Your task to perform on an android device: stop showing notifications on the lock screen Image 0: 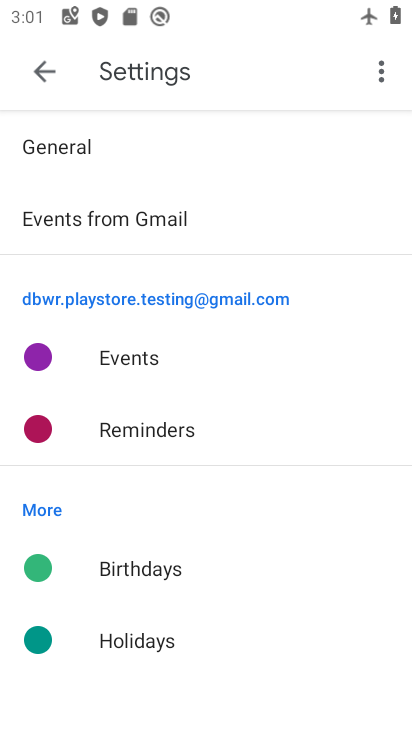
Step 0: press home button
Your task to perform on an android device: stop showing notifications on the lock screen Image 1: 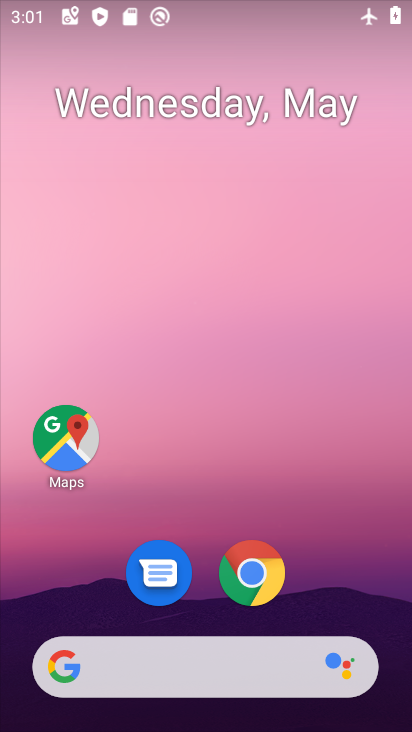
Step 1: drag from (340, 588) to (350, 120)
Your task to perform on an android device: stop showing notifications on the lock screen Image 2: 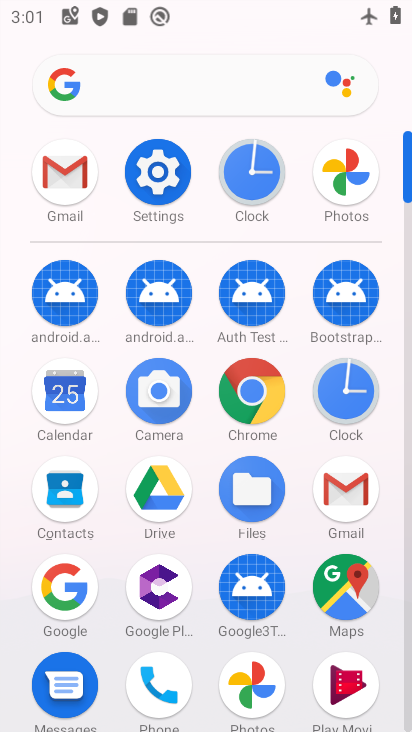
Step 2: click (149, 179)
Your task to perform on an android device: stop showing notifications on the lock screen Image 3: 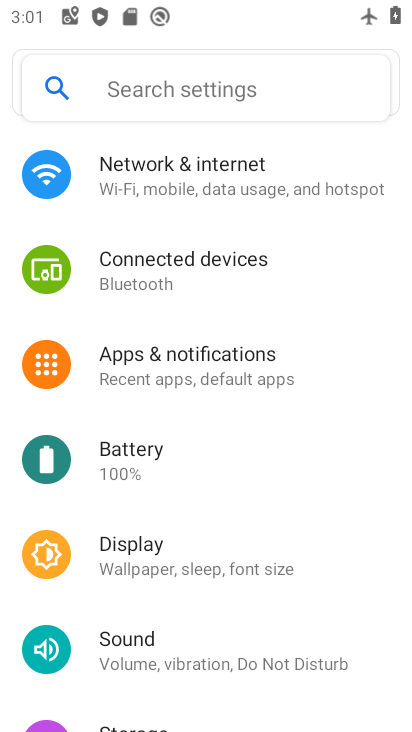
Step 3: click (147, 360)
Your task to perform on an android device: stop showing notifications on the lock screen Image 4: 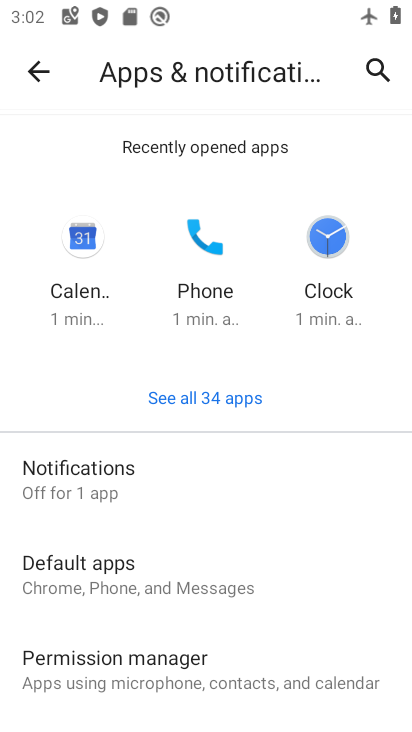
Step 4: click (153, 485)
Your task to perform on an android device: stop showing notifications on the lock screen Image 5: 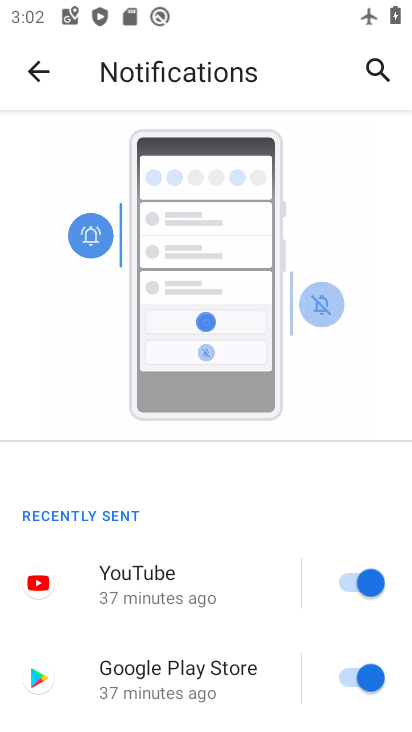
Step 5: drag from (180, 630) to (208, 284)
Your task to perform on an android device: stop showing notifications on the lock screen Image 6: 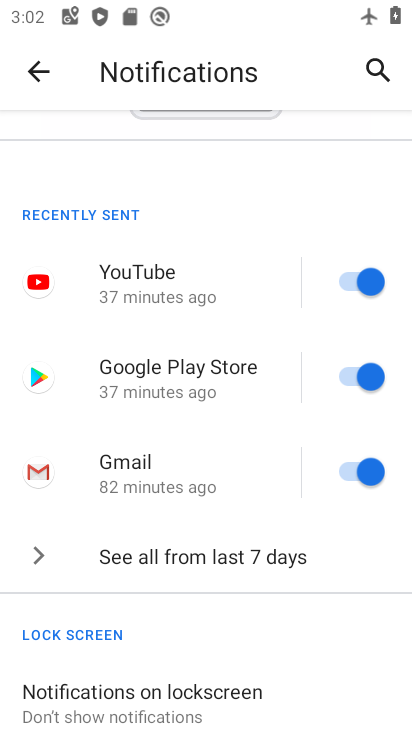
Step 6: drag from (169, 605) to (217, 328)
Your task to perform on an android device: stop showing notifications on the lock screen Image 7: 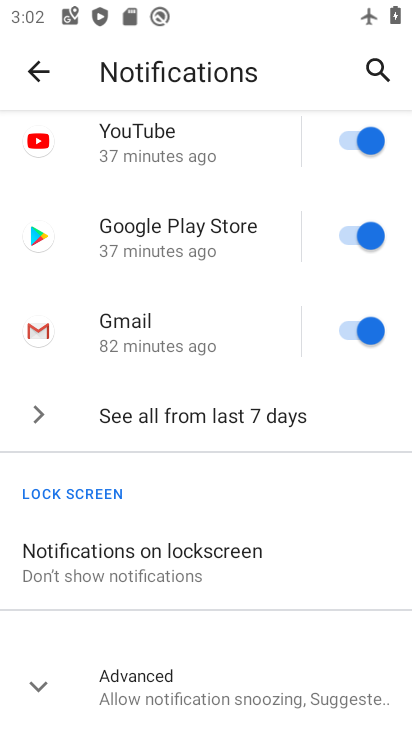
Step 7: click (143, 568)
Your task to perform on an android device: stop showing notifications on the lock screen Image 8: 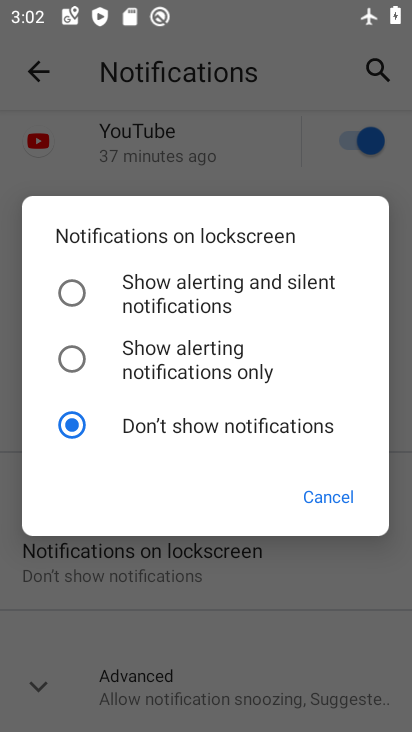
Step 8: click (142, 423)
Your task to perform on an android device: stop showing notifications on the lock screen Image 9: 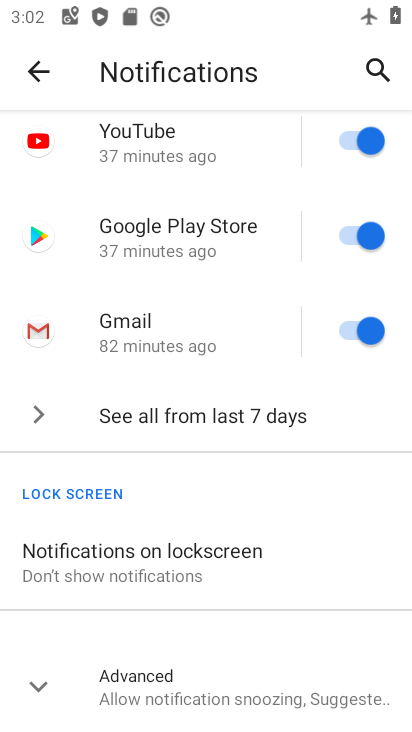
Step 9: task complete